Your task to perform on an android device: Open notification settings Image 0: 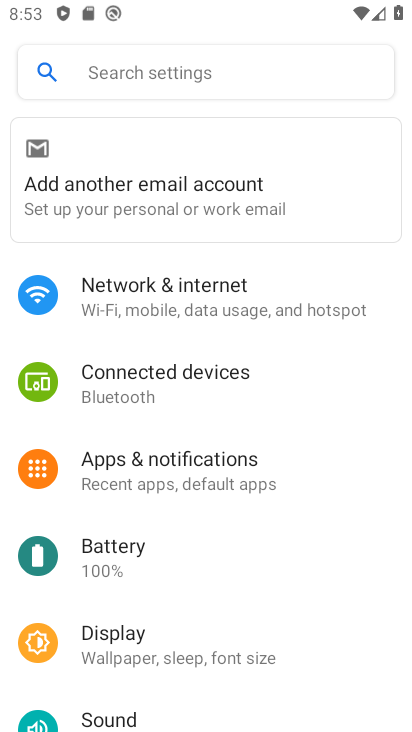
Step 0: press home button
Your task to perform on an android device: Open notification settings Image 1: 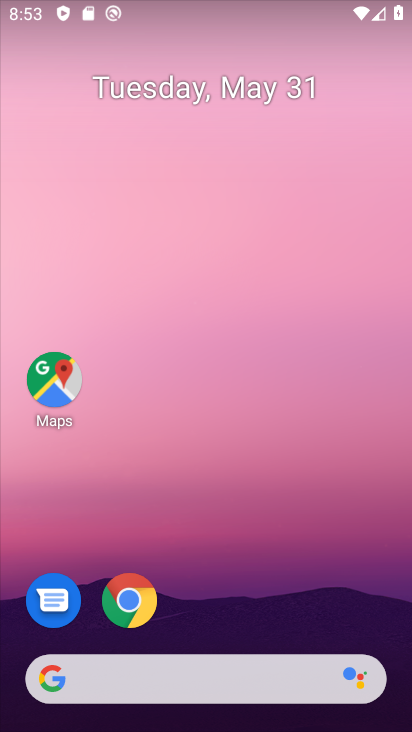
Step 1: drag from (211, 708) to (288, 335)
Your task to perform on an android device: Open notification settings Image 2: 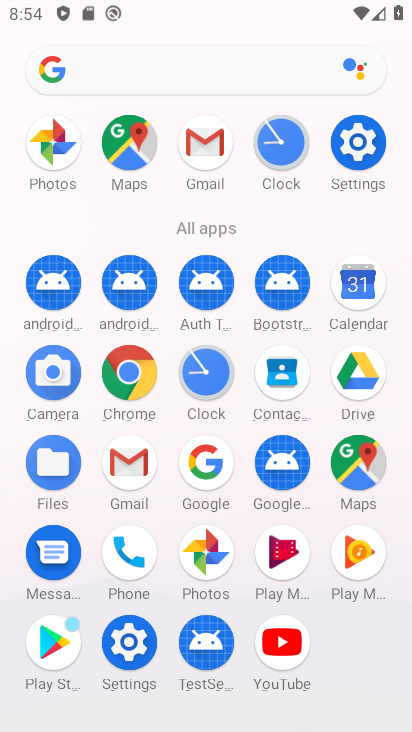
Step 2: click (360, 159)
Your task to perform on an android device: Open notification settings Image 3: 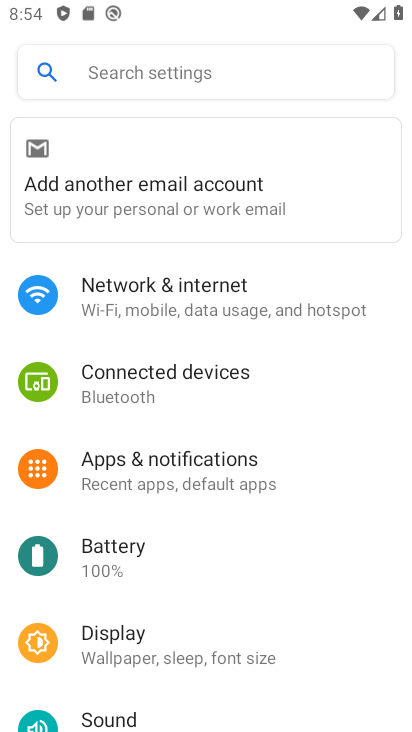
Step 3: click (182, 65)
Your task to perform on an android device: Open notification settings Image 4: 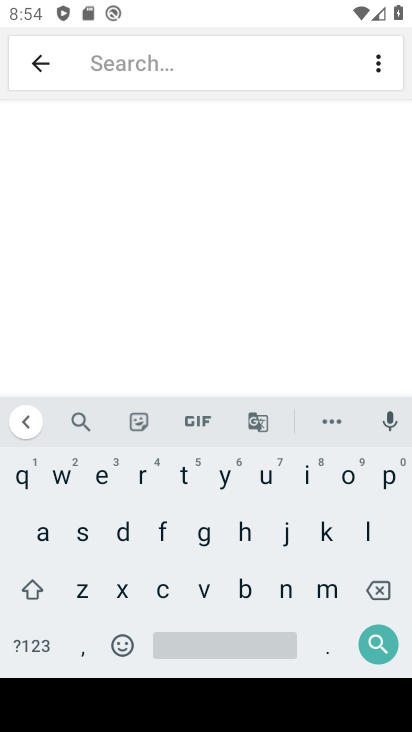
Step 4: click (281, 580)
Your task to perform on an android device: Open notification settings Image 5: 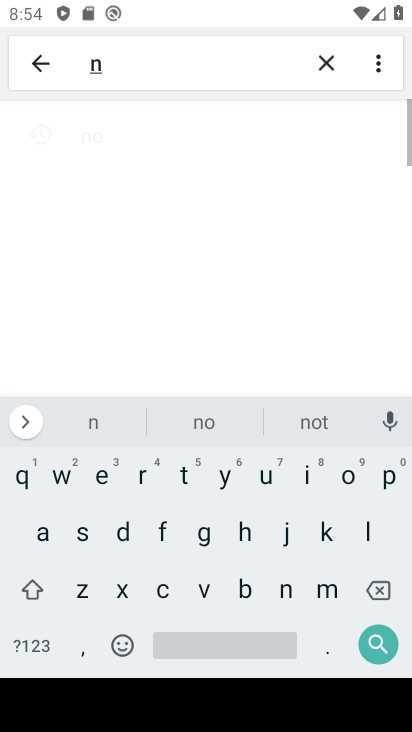
Step 5: click (344, 469)
Your task to perform on an android device: Open notification settings Image 6: 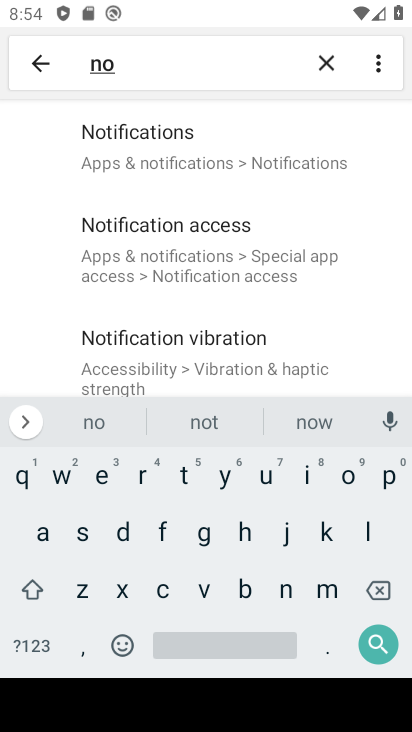
Step 6: click (219, 141)
Your task to perform on an android device: Open notification settings Image 7: 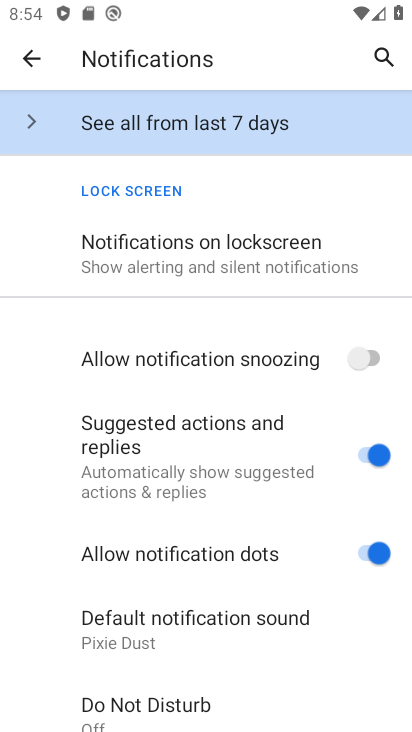
Step 7: click (157, 260)
Your task to perform on an android device: Open notification settings Image 8: 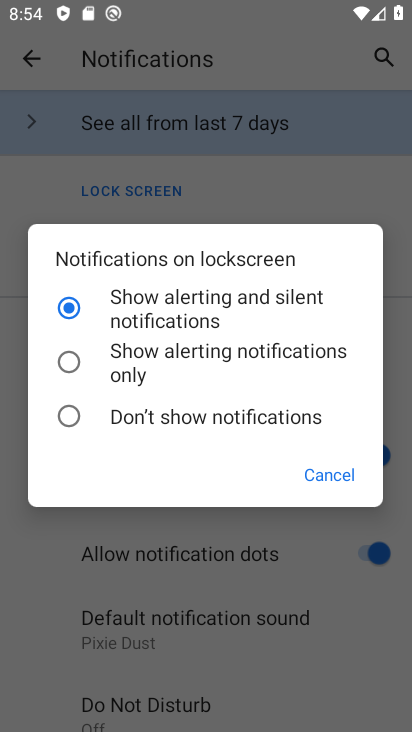
Step 8: task complete